Your task to perform on an android device: Turn on the flashlight Image 0: 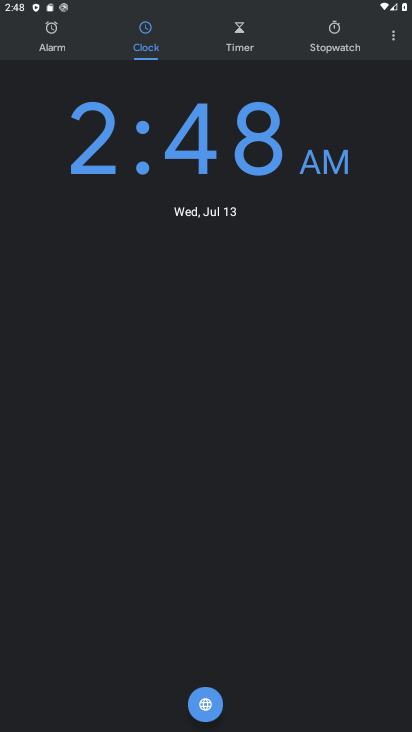
Step 0: drag from (267, 64) to (329, 583)
Your task to perform on an android device: Turn on the flashlight Image 1: 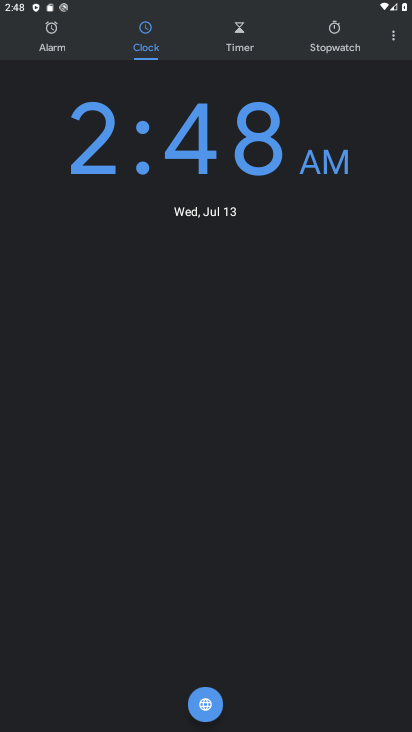
Step 1: task complete